Your task to perform on an android device: Open Google Chrome and open the bookmarks view Image 0: 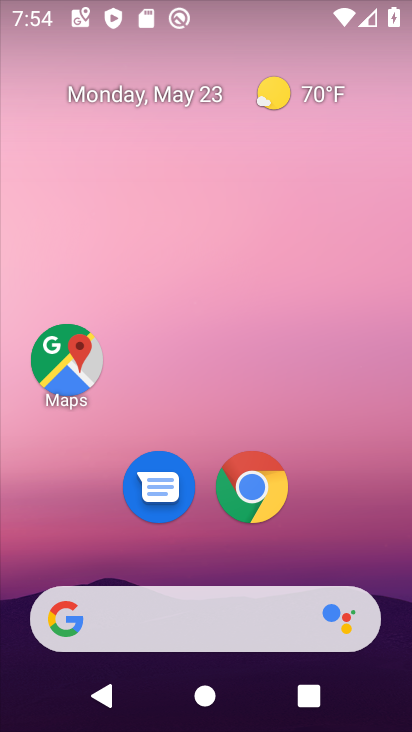
Step 0: click (239, 492)
Your task to perform on an android device: Open Google Chrome and open the bookmarks view Image 1: 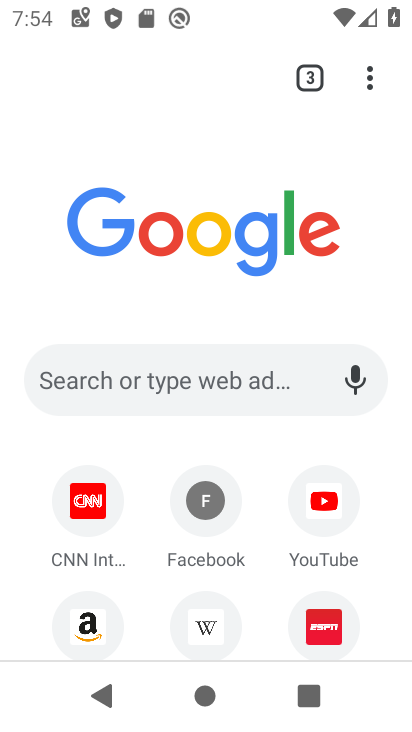
Step 1: click (365, 77)
Your task to perform on an android device: Open Google Chrome and open the bookmarks view Image 2: 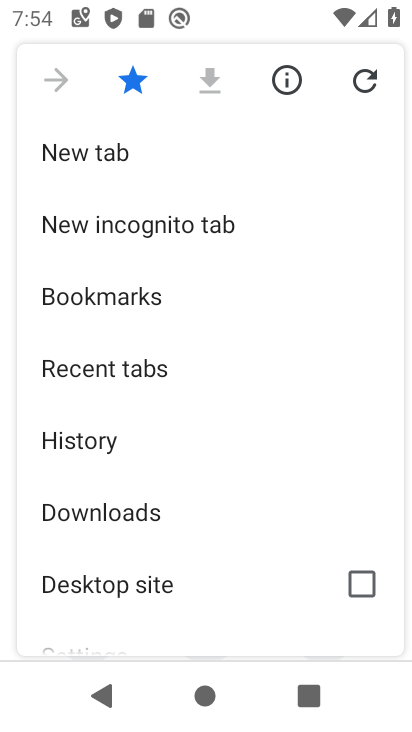
Step 2: click (122, 298)
Your task to perform on an android device: Open Google Chrome and open the bookmarks view Image 3: 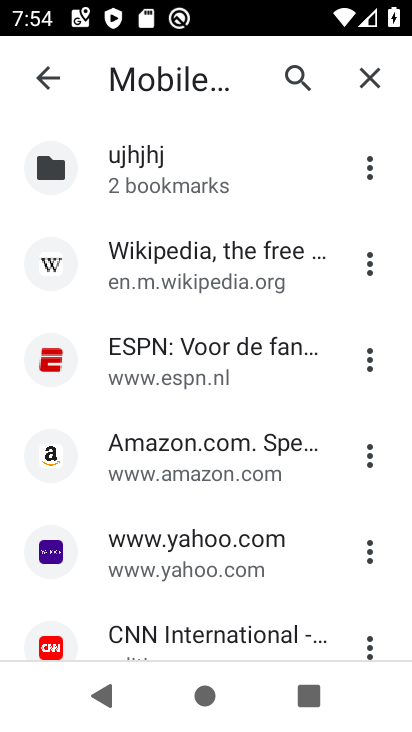
Step 3: task complete